Your task to perform on an android device: install app "Indeed Job Search" Image 0: 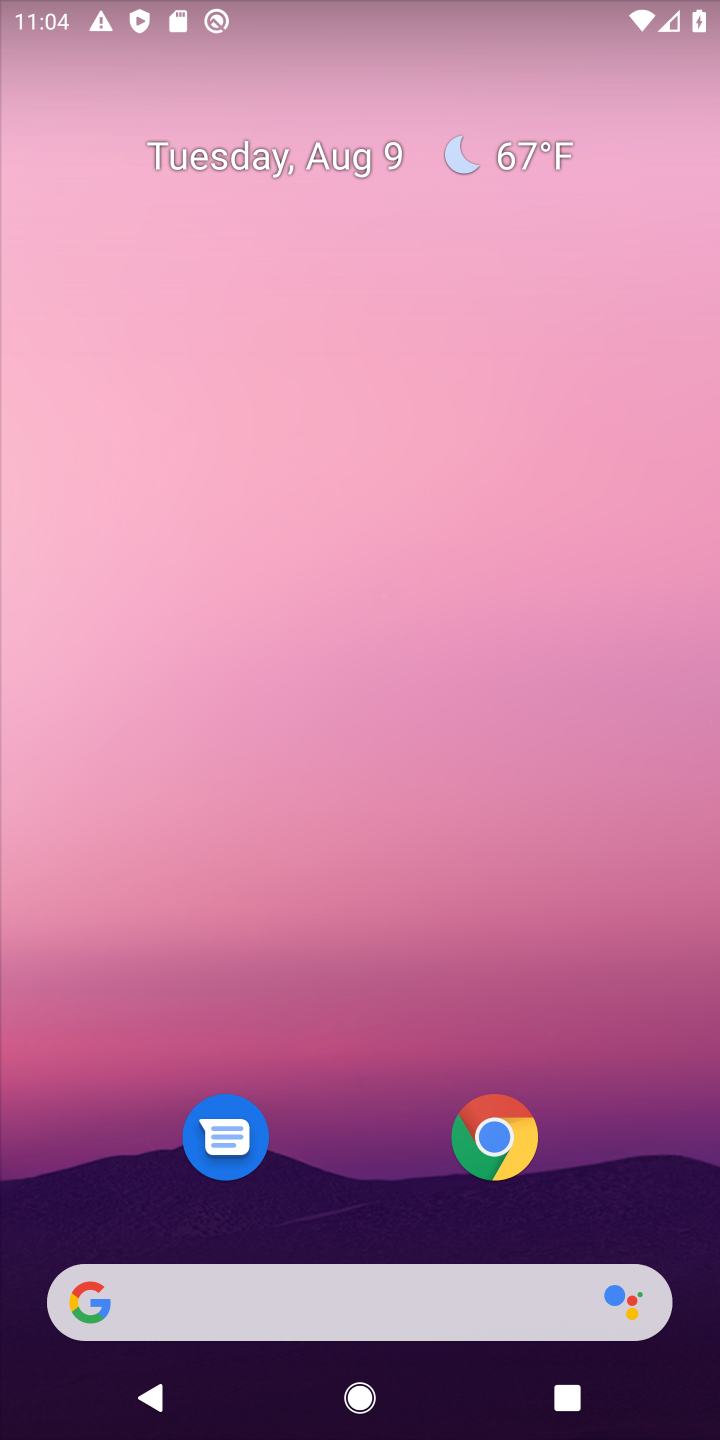
Step 0: drag from (638, 1048) to (335, 48)
Your task to perform on an android device: install app "Indeed Job Search" Image 1: 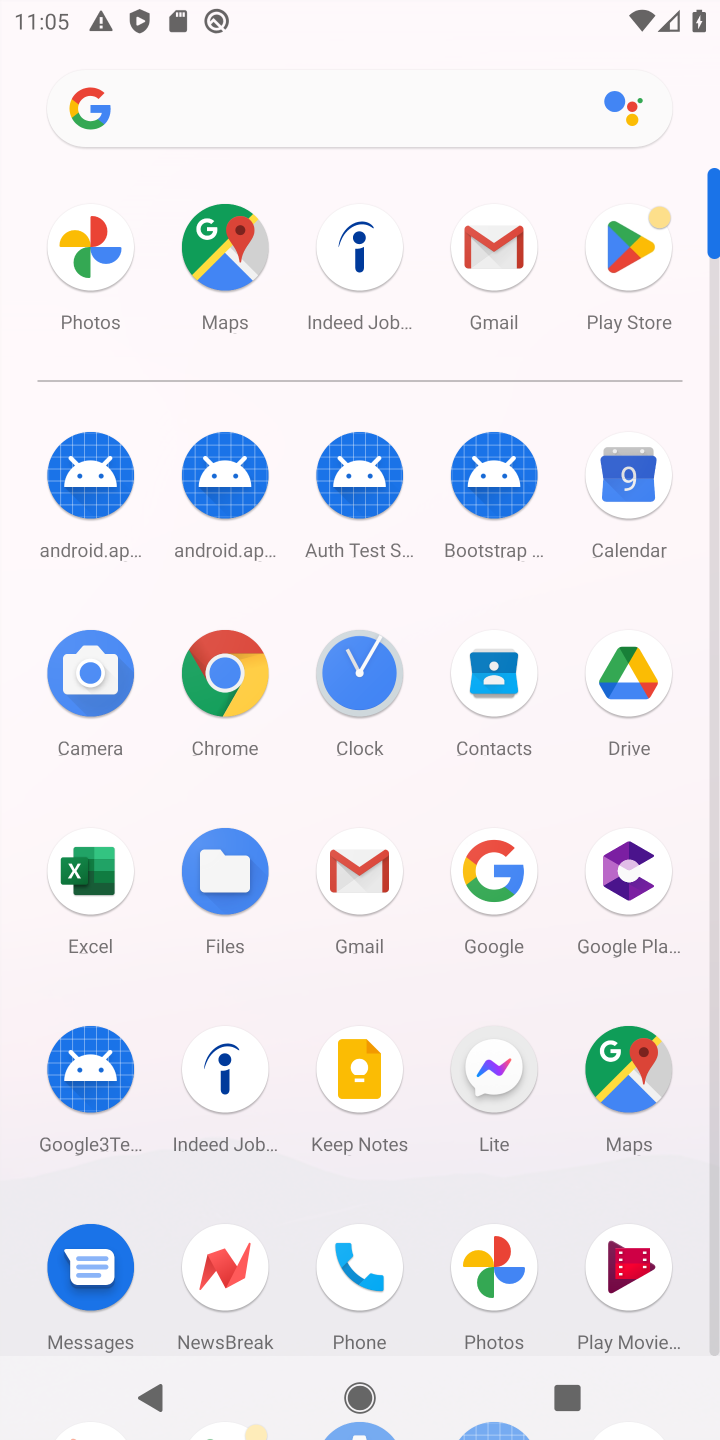
Step 1: click (644, 264)
Your task to perform on an android device: install app "Indeed Job Search" Image 2: 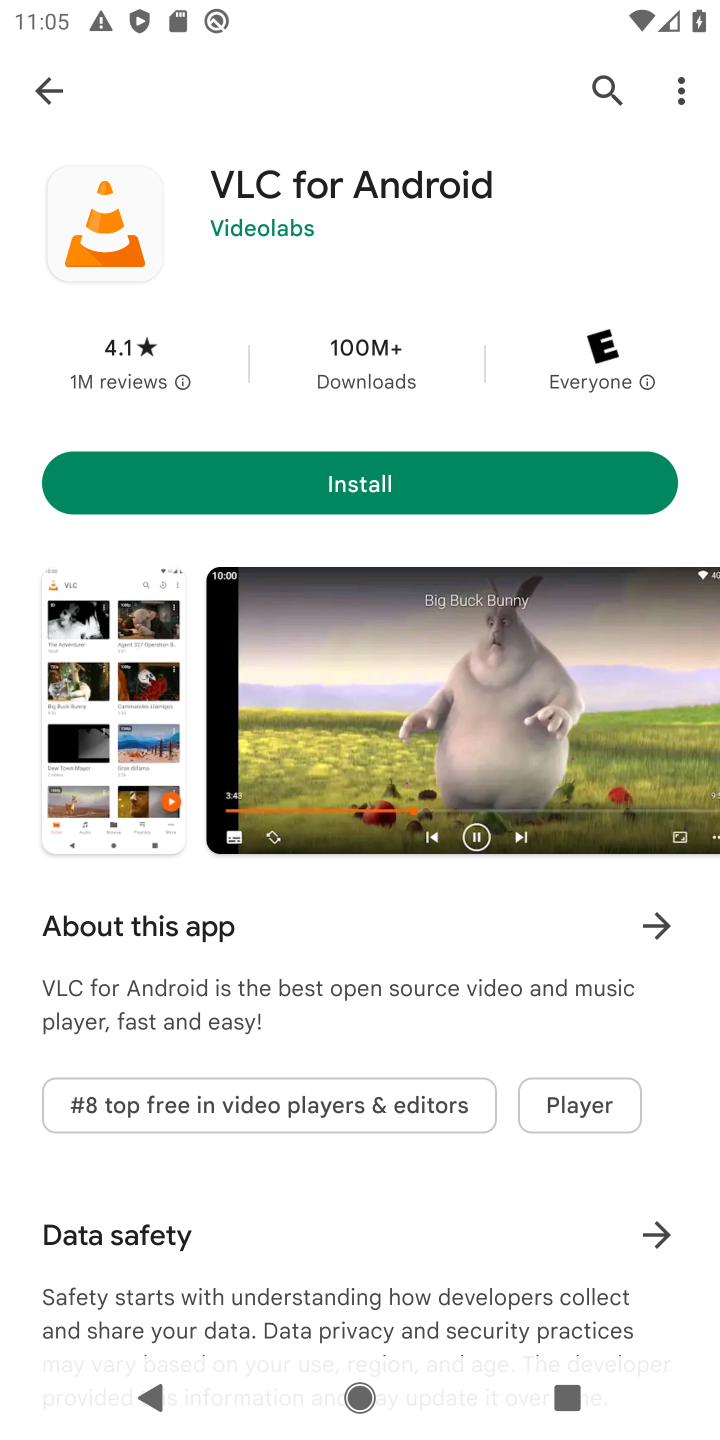
Step 2: press back button
Your task to perform on an android device: install app "Indeed Job Search" Image 3: 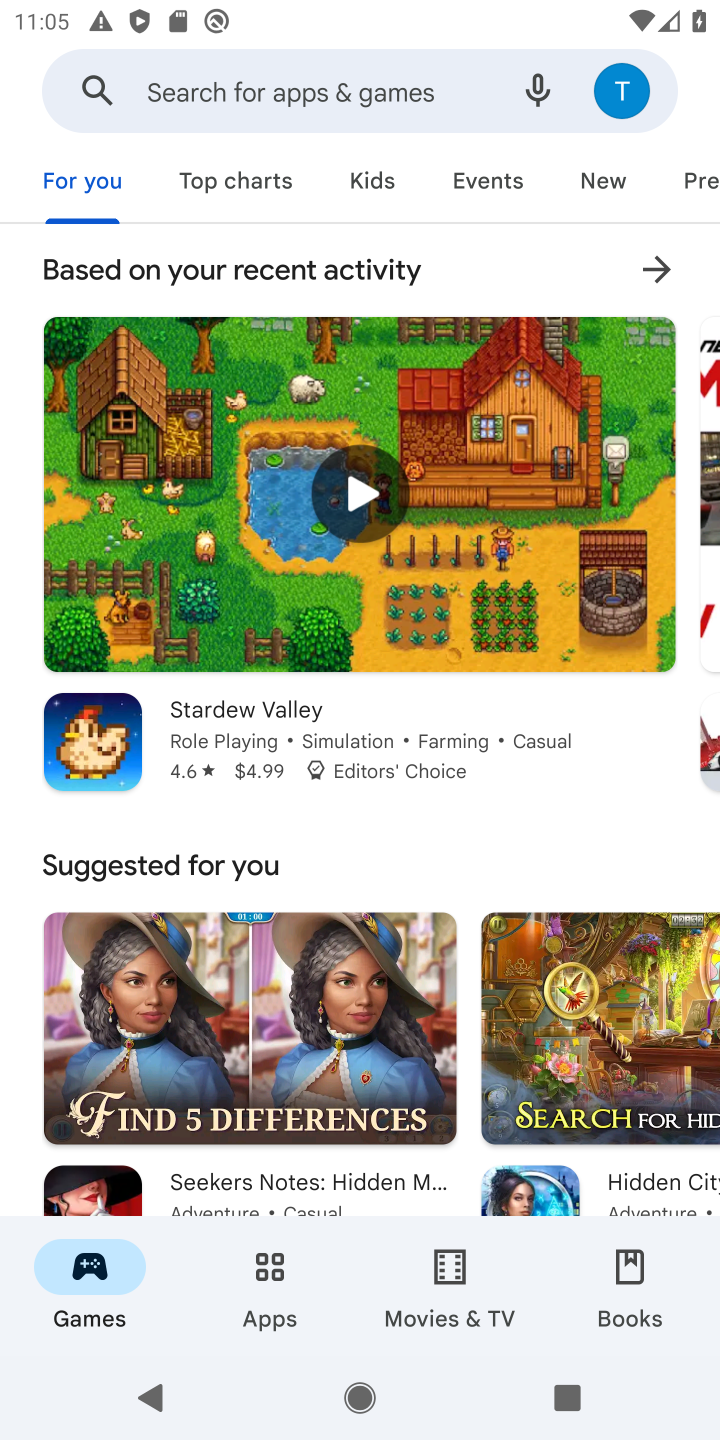
Step 3: click (264, 101)
Your task to perform on an android device: install app "Indeed Job Search" Image 4: 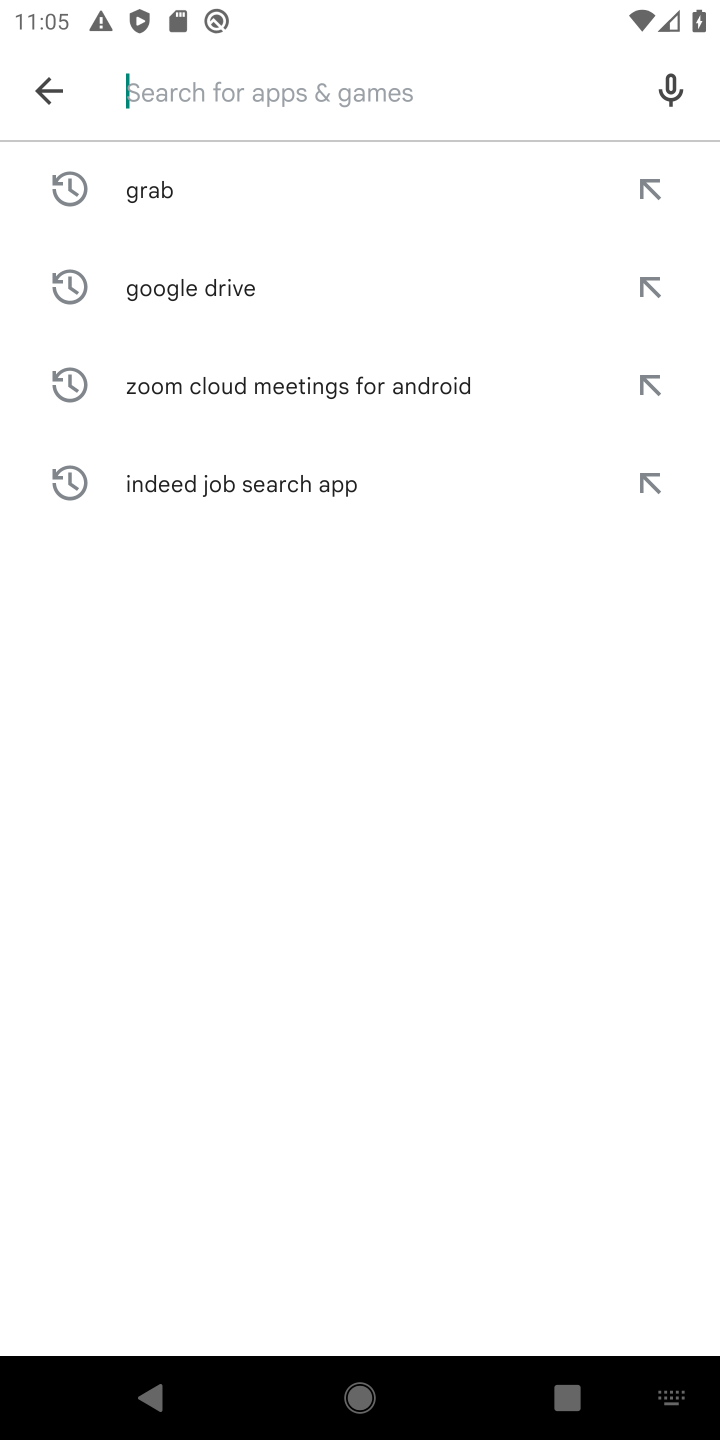
Step 4: type "Indeed Job Search"
Your task to perform on an android device: install app "Indeed Job Search" Image 5: 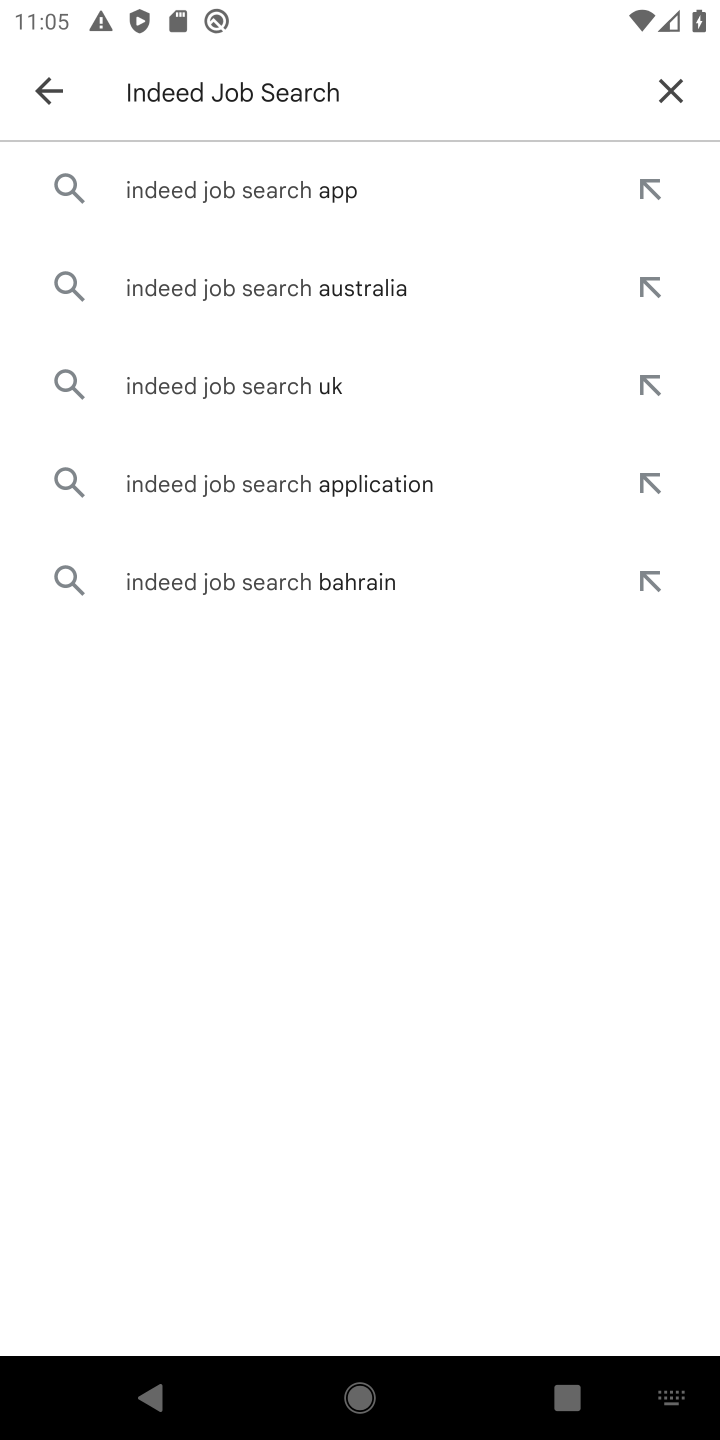
Step 5: click (262, 188)
Your task to perform on an android device: install app "Indeed Job Search" Image 6: 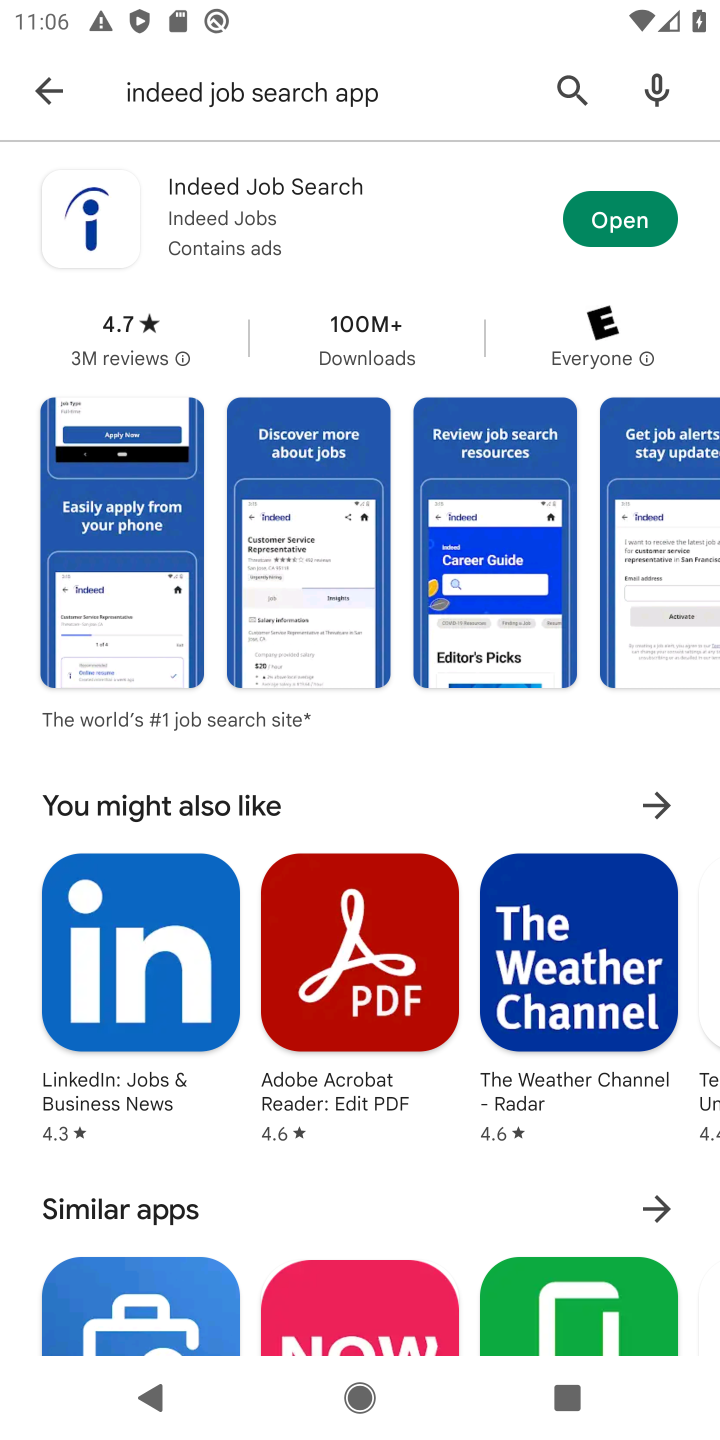
Step 6: task complete